Your task to perform on an android device: Open privacy settings Image 0: 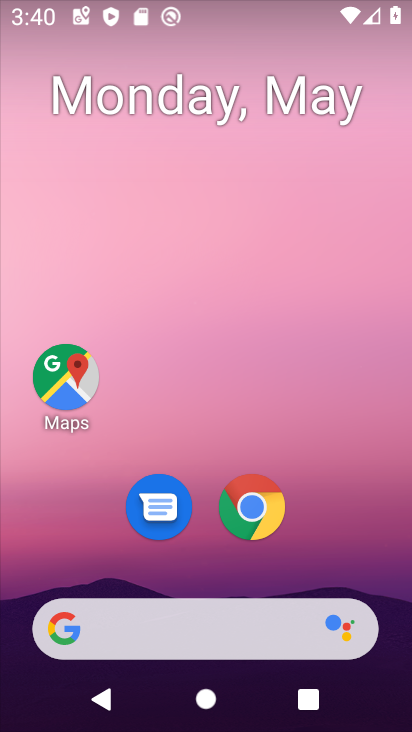
Step 0: drag from (262, 139) to (214, 144)
Your task to perform on an android device: Open privacy settings Image 1: 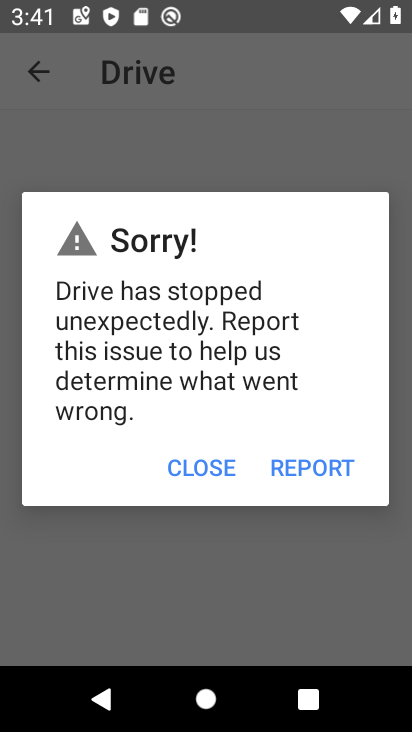
Step 1: press home button
Your task to perform on an android device: Open privacy settings Image 2: 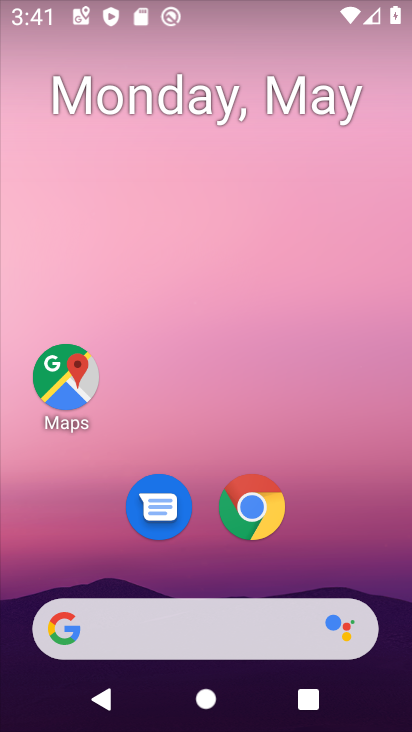
Step 2: drag from (186, 593) to (204, 186)
Your task to perform on an android device: Open privacy settings Image 3: 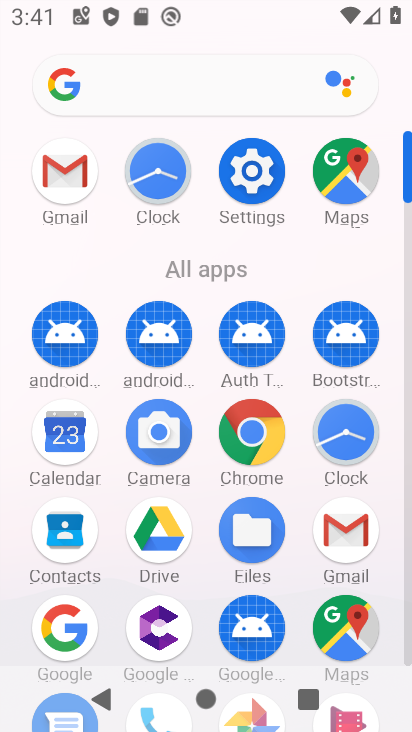
Step 3: click (240, 184)
Your task to perform on an android device: Open privacy settings Image 4: 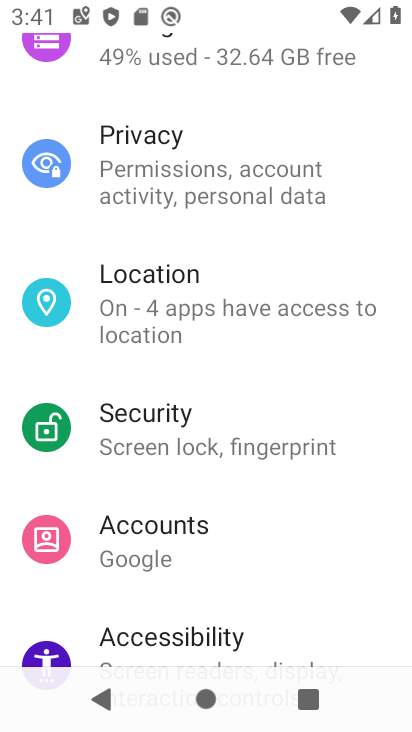
Step 4: click (150, 143)
Your task to perform on an android device: Open privacy settings Image 5: 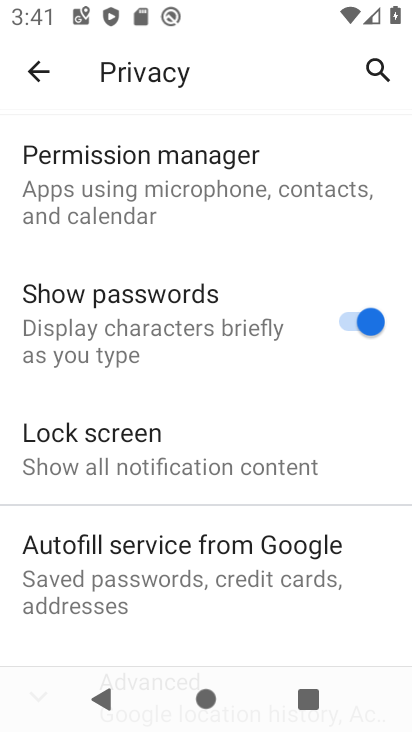
Step 5: task complete